Your task to perform on an android device: Open calendar and show me the fourth week of next month Image 0: 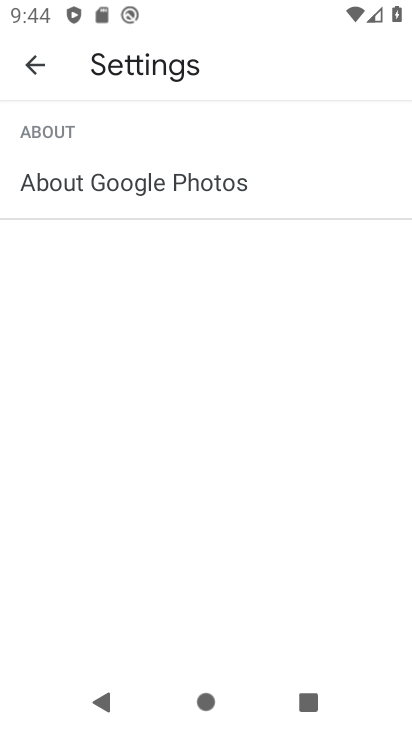
Step 0: press home button
Your task to perform on an android device: Open calendar and show me the fourth week of next month Image 1: 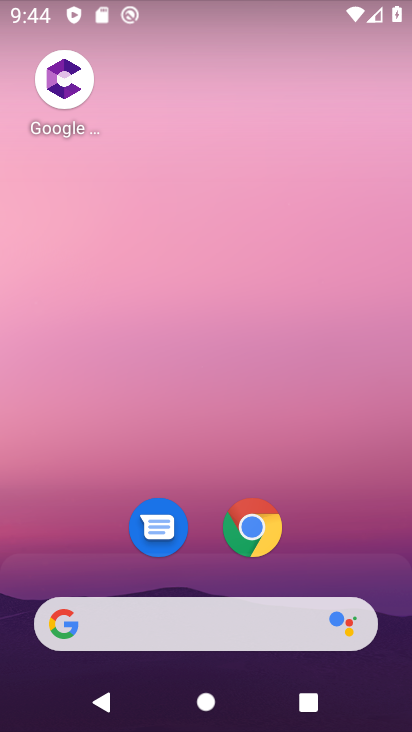
Step 1: drag from (324, 543) to (245, 56)
Your task to perform on an android device: Open calendar and show me the fourth week of next month Image 2: 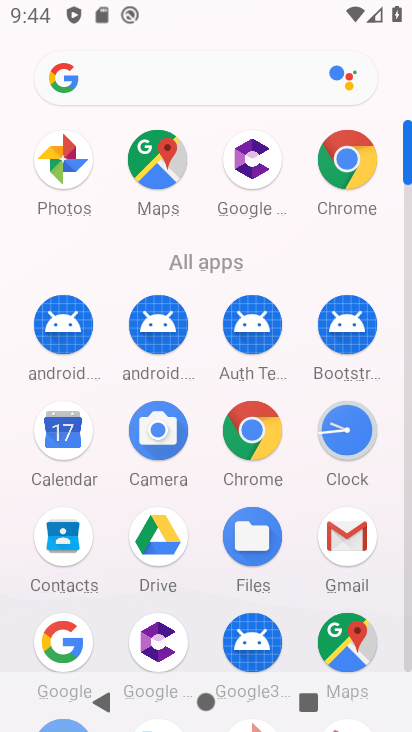
Step 2: click (63, 432)
Your task to perform on an android device: Open calendar and show me the fourth week of next month Image 3: 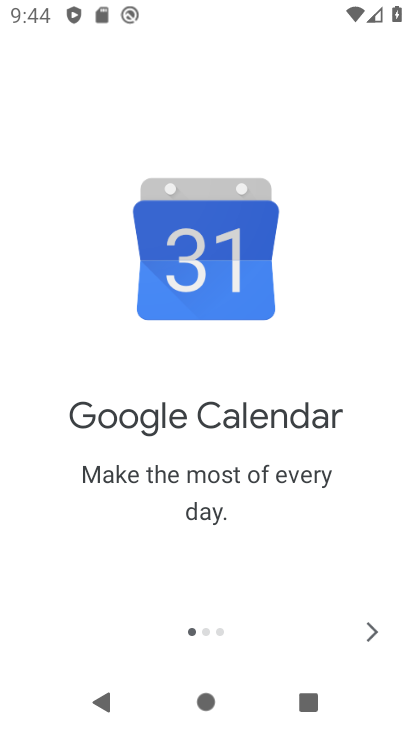
Step 3: click (372, 628)
Your task to perform on an android device: Open calendar and show me the fourth week of next month Image 4: 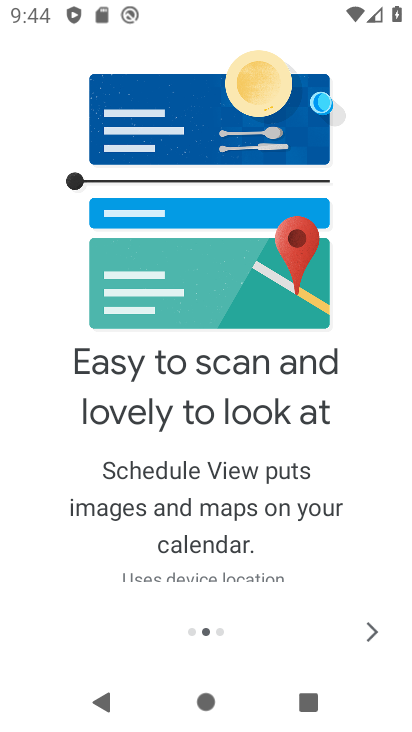
Step 4: click (372, 628)
Your task to perform on an android device: Open calendar and show me the fourth week of next month Image 5: 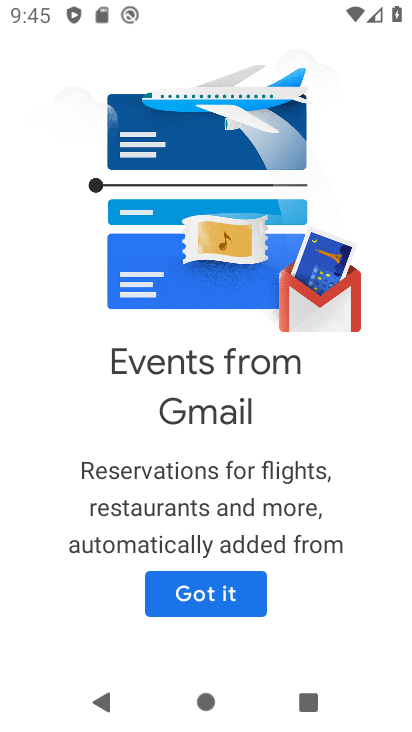
Step 5: click (219, 597)
Your task to perform on an android device: Open calendar and show me the fourth week of next month Image 6: 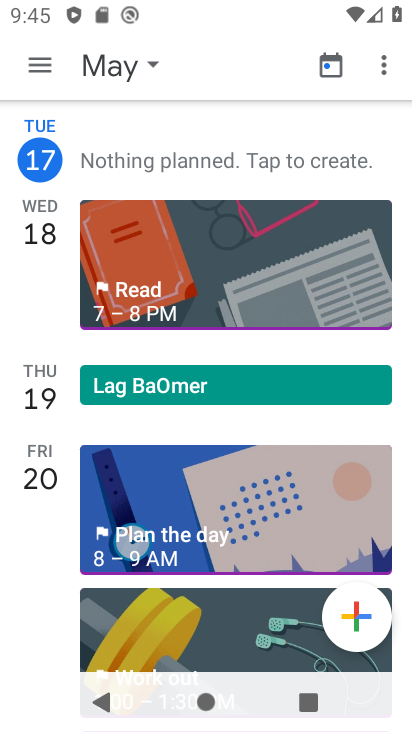
Step 6: click (152, 64)
Your task to perform on an android device: Open calendar and show me the fourth week of next month Image 7: 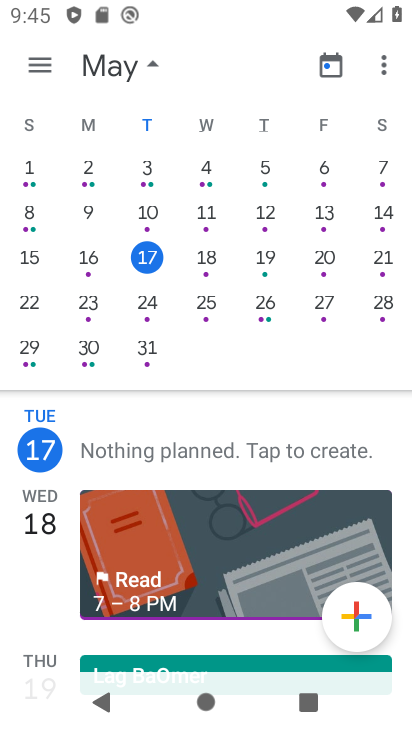
Step 7: drag from (357, 274) to (4, 259)
Your task to perform on an android device: Open calendar and show me the fourth week of next month Image 8: 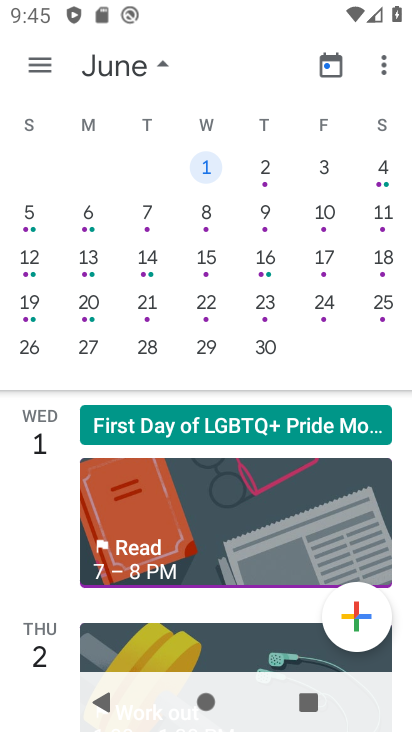
Step 8: click (87, 343)
Your task to perform on an android device: Open calendar and show me the fourth week of next month Image 9: 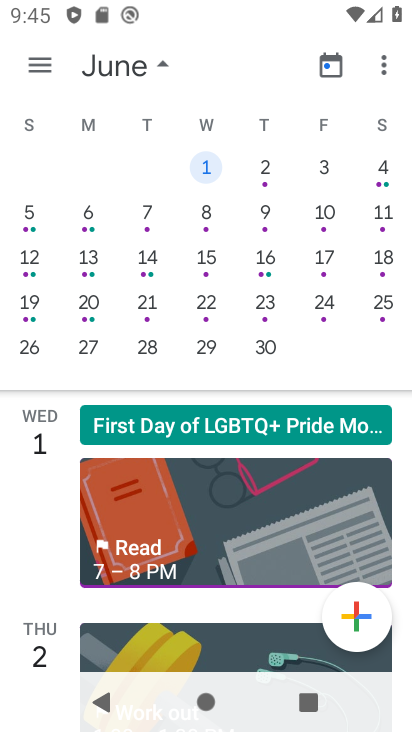
Step 9: click (87, 345)
Your task to perform on an android device: Open calendar and show me the fourth week of next month Image 10: 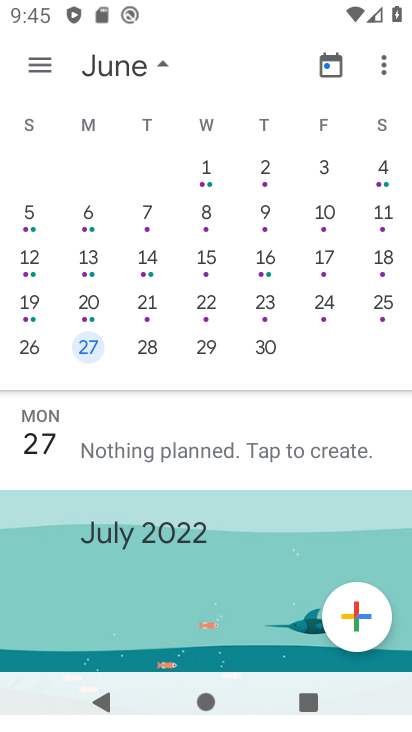
Step 10: click (44, 74)
Your task to perform on an android device: Open calendar and show me the fourth week of next month Image 11: 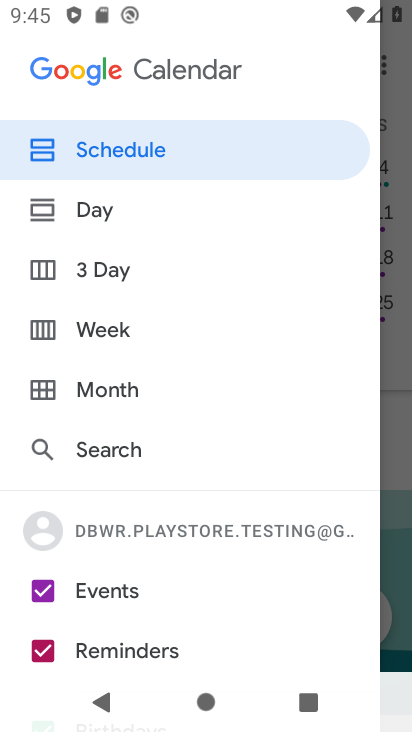
Step 11: click (108, 331)
Your task to perform on an android device: Open calendar and show me the fourth week of next month Image 12: 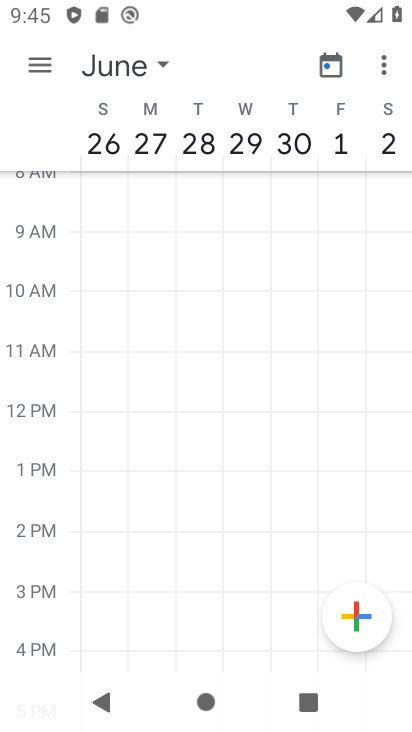
Step 12: task complete